Your task to perform on an android device: Go to Google maps Image 0: 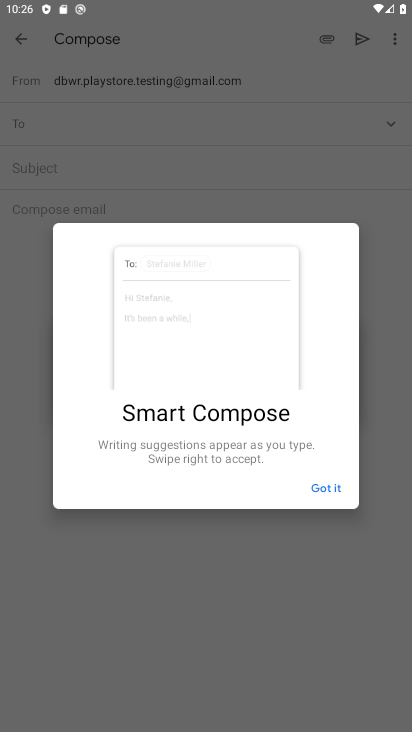
Step 0: press home button
Your task to perform on an android device: Go to Google maps Image 1: 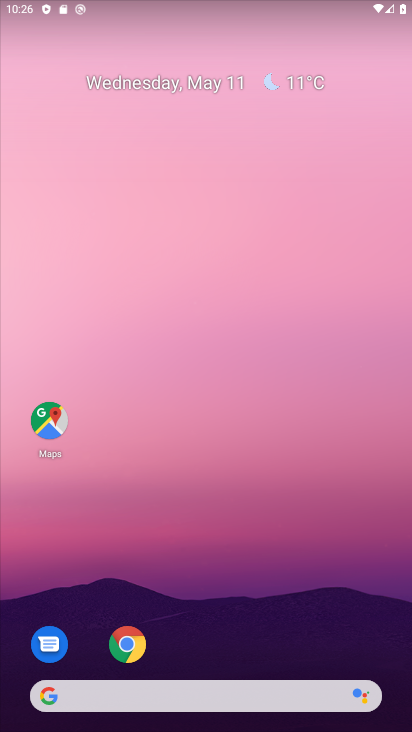
Step 1: click (45, 416)
Your task to perform on an android device: Go to Google maps Image 2: 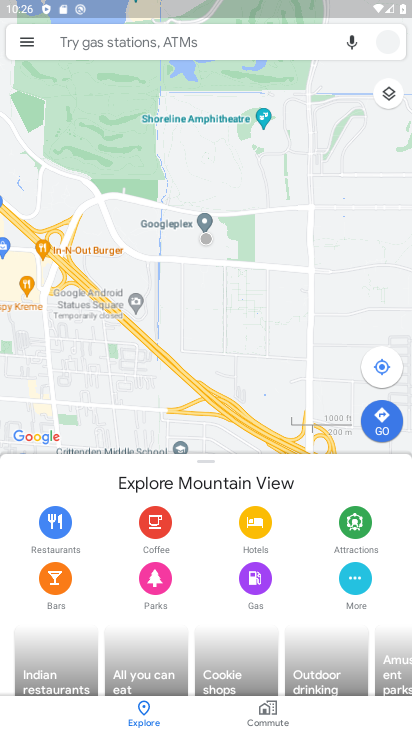
Step 2: task complete